Your task to perform on an android device: find photos in the google photos app Image 0: 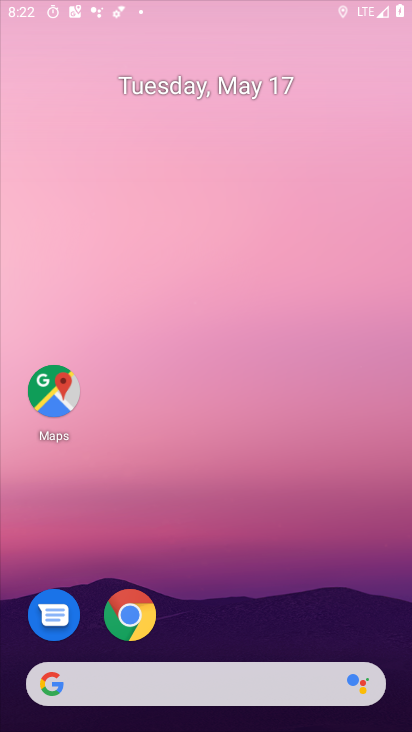
Step 0: drag from (223, 649) to (293, 123)
Your task to perform on an android device: find photos in the google photos app Image 1: 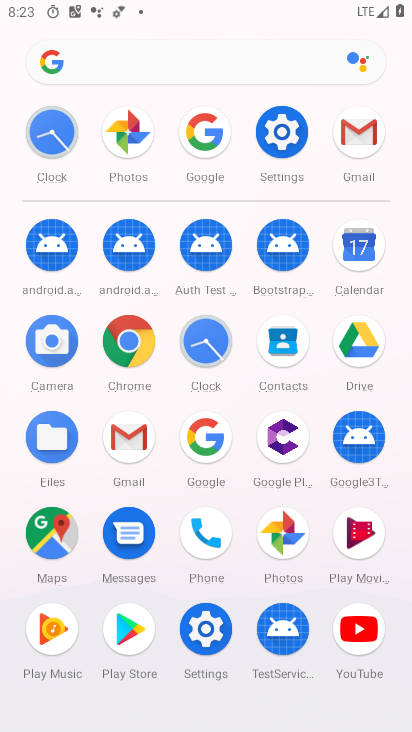
Step 1: click (121, 137)
Your task to perform on an android device: find photos in the google photos app Image 2: 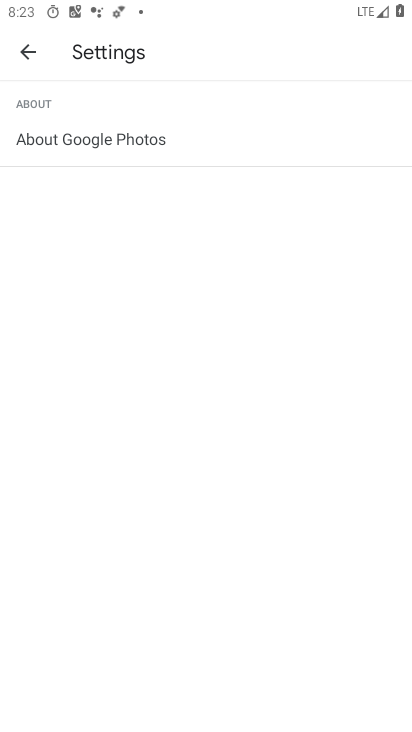
Step 2: task complete